Your task to perform on an android device: Turn off the flashlight Image 0: 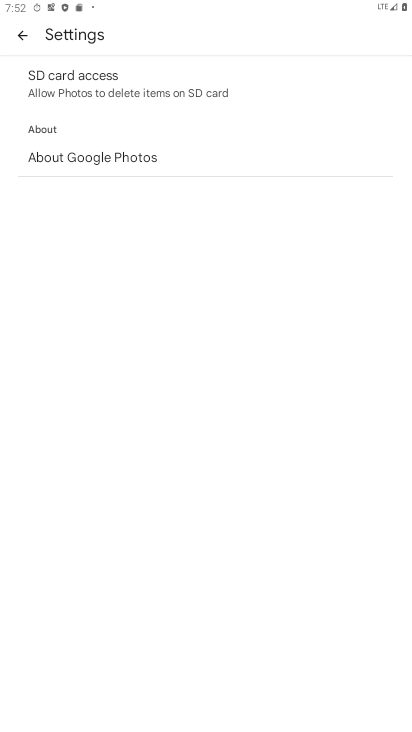
Step 0: press home button
Your task to perform on an android device: Turn off the flashlight Image 1: 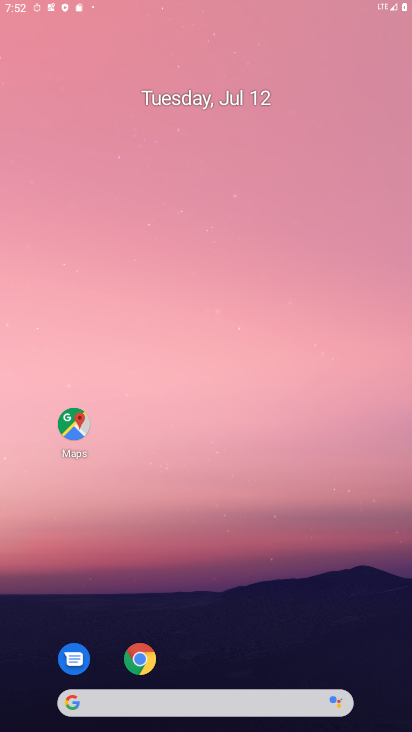
Step 1: drag from (397, 712) to (298, 23)
Your task to perform on an android device: Turn off the flashlight Image 2: 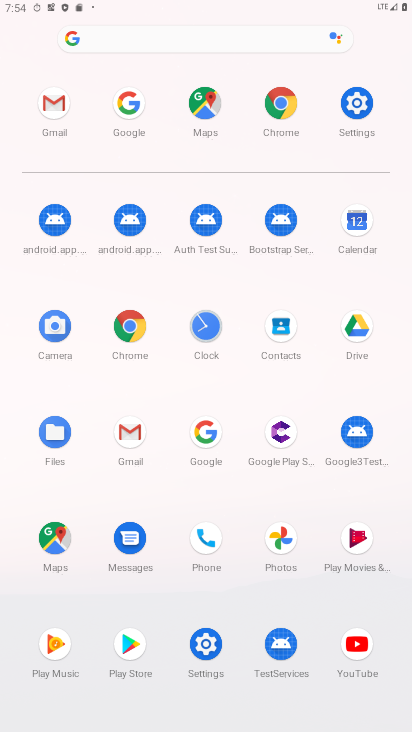
Step 2: click (365, 122)
Your task to perform on an android device: Turn off the flashlight Image 3: 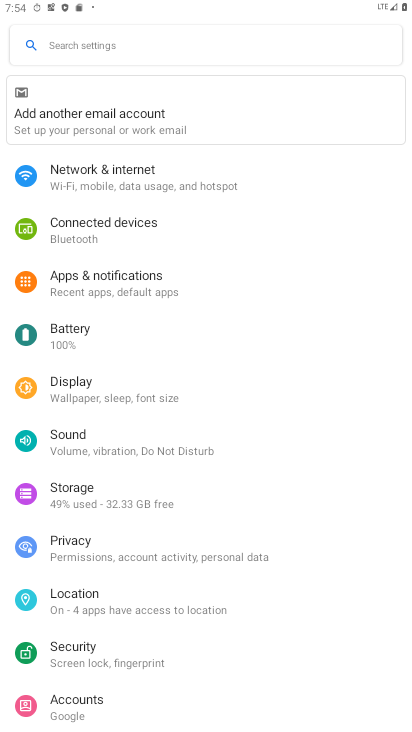
Step 3: task complete